Your task to perform on an android device: What's on my calendar today? Image 0: 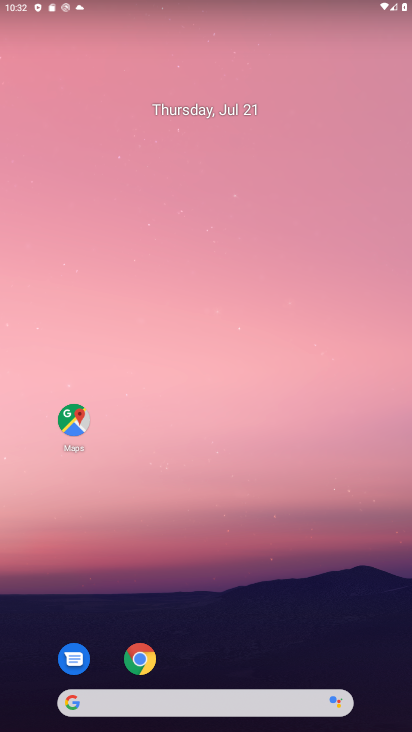
Step 0: task complete